Your task to perform on an android device: Is it going to rain tomorrow? Image 0: 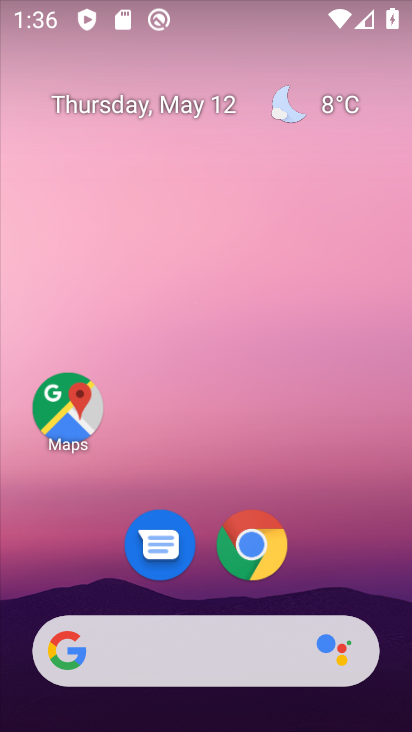
Step 0: drag from (205, 592) to (220, 372)
Your task to perform on an android device: Is it going to rain tomorrow? Image 1: 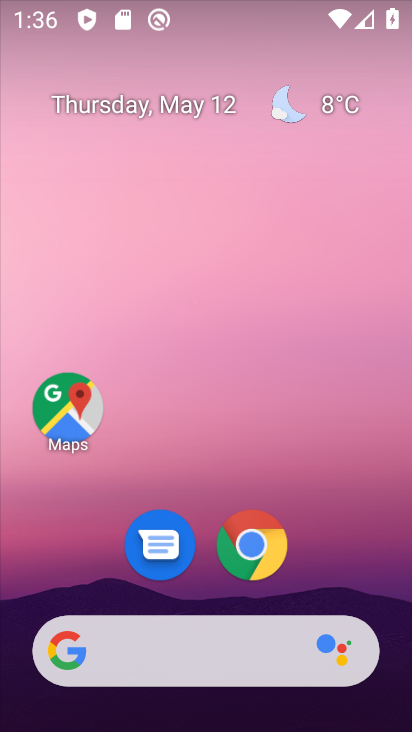
Step 1: drag from (207, 594) to (197, 260)
Your task to perform on an android device: Is it going to rain tomorrow? Image 2: 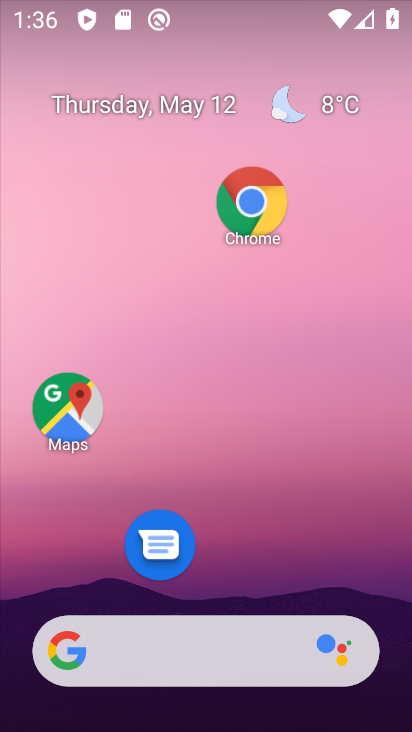
Step 2: drag from (175, 591) to (200, 223)
Your task to perform on an android device: Is it going to rain tomorrow? Image 3: 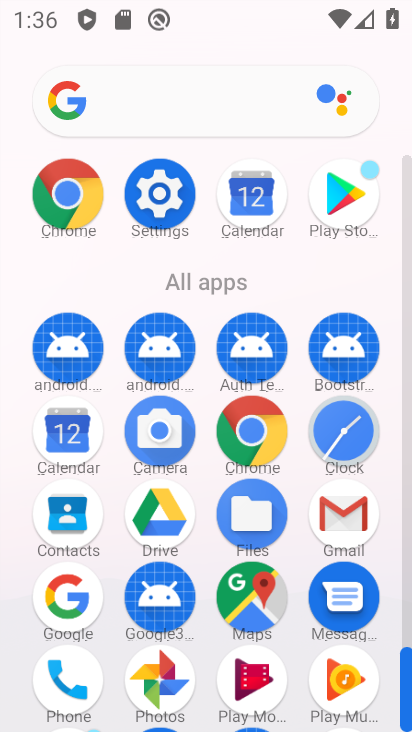
Step 3: click (194, 103)
Your task to perform on an android device: Is it going to rain tomorrow? Image 4: 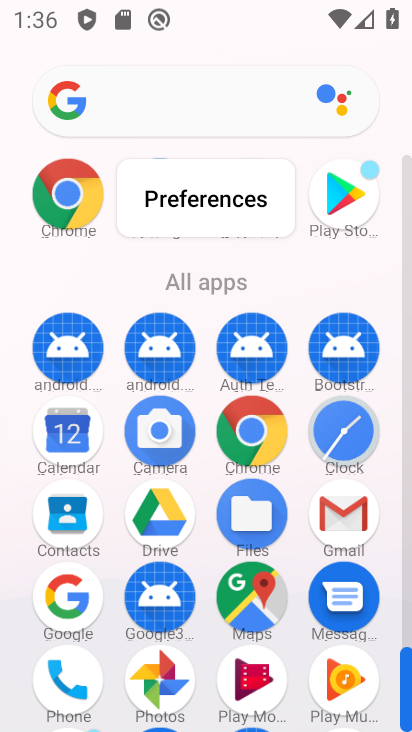
Step 4: click (190, 98)
Your task to perform on an android device: Is it going to rain tomorrow? Image 5: 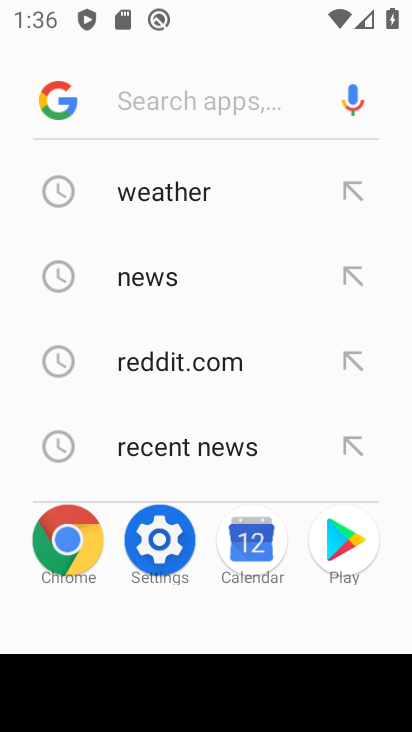
Step 5: type "rain tomorrow"
Your task to perform on an android device: Is it going to rain tomorrow? Image 6: 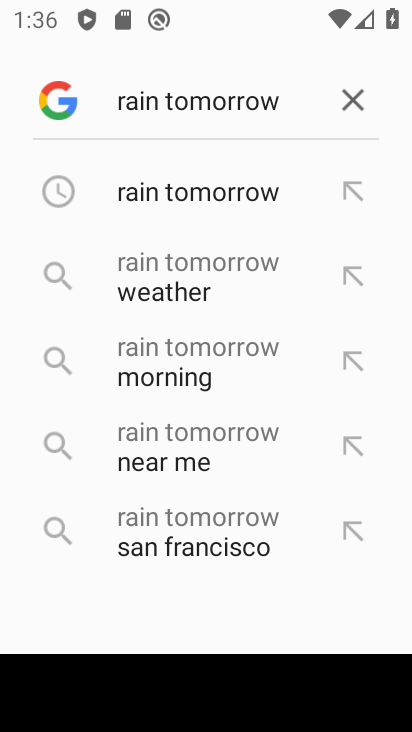
Step 6: click (211, 184)
Your task to perform on an android device: Is it going to rain tomorrow? Image 7: 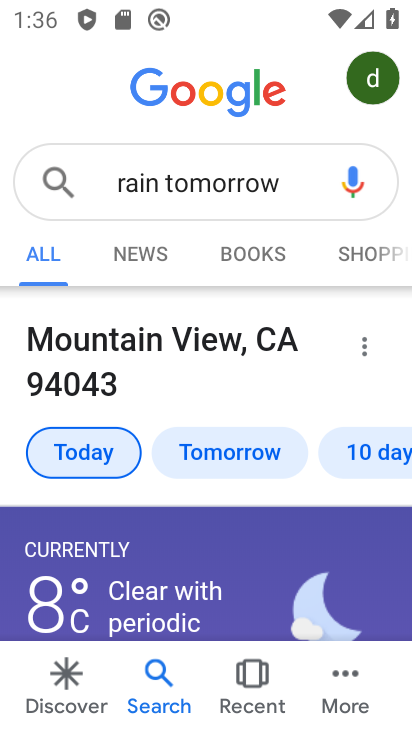
Step 7: task complete